Your task to perform on an android device: toggle improve location accuracy Image 0: 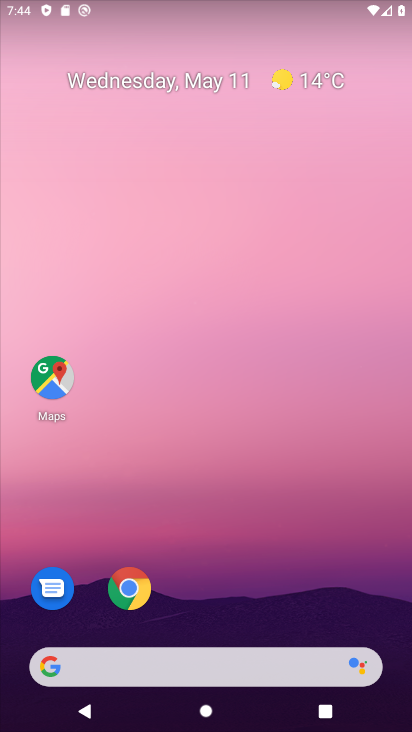
Step 0: drag from (258, 724) to (254, 3)
Your task to perform on an android device: toggle improve location accuracy Image 1: 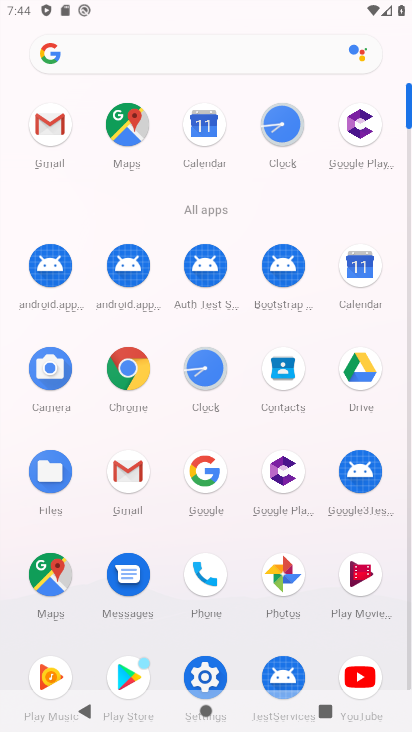
Step 1: click (200, 666)
Your task to perform on an android device: toggle improve location accuracy Image 2: 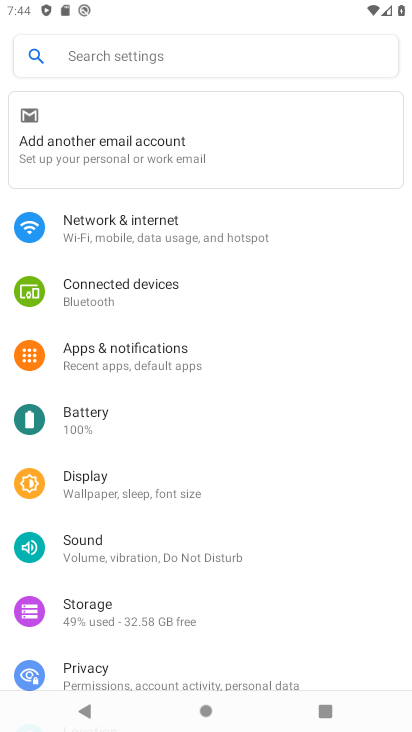
Step 2: drag from (218, 621) to (192, 221)
Your task to perform on an android device: toggle improve location accuracy Image 3: 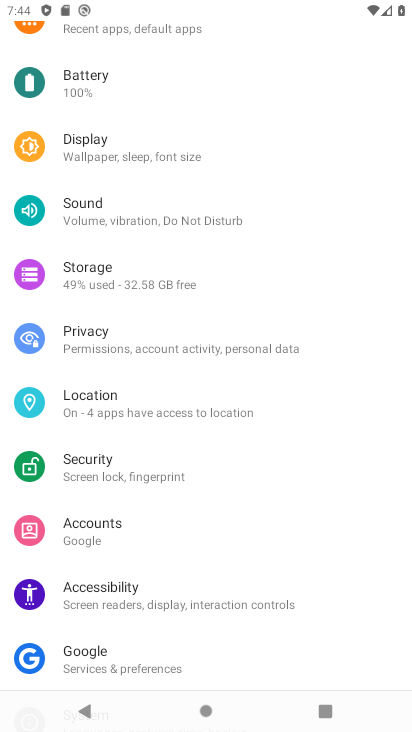
Step 3: click (114, 407)
Your task to perform on an android device: toggle improve location accuracy Image 4: 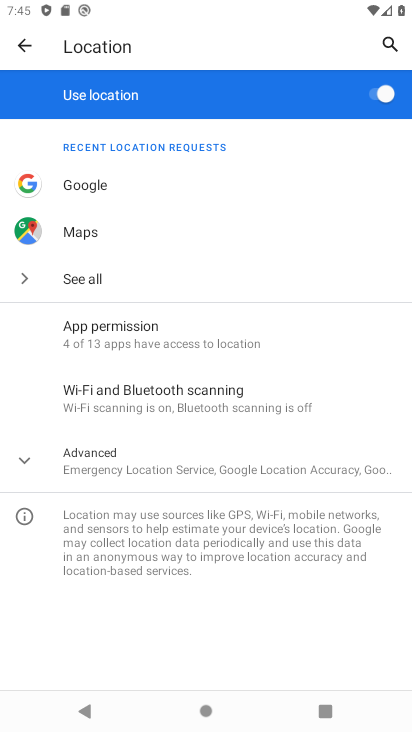
Step 4: click (238, 465)
Your task to perform on an android device: toggle improve location accuracy Image 5: 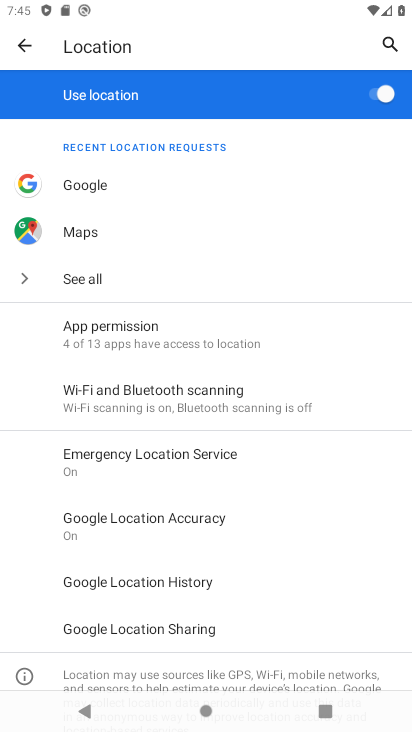
Step 5: click (207, 524)
Your task to perform on an android device: toggle improve location accuracy Image 6: 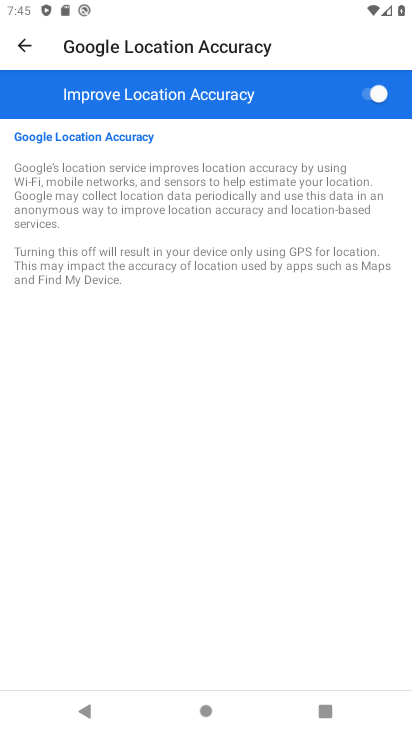
Step 6: click (382, 95)
Your task to perform on an android device: toggle improve location accuracy Image 7: 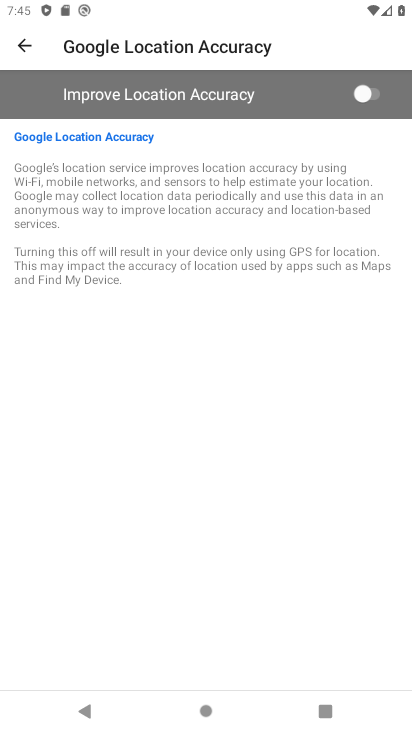
Step 7: task complete